Your task to perform on an android device: Open internet settings Image 0: 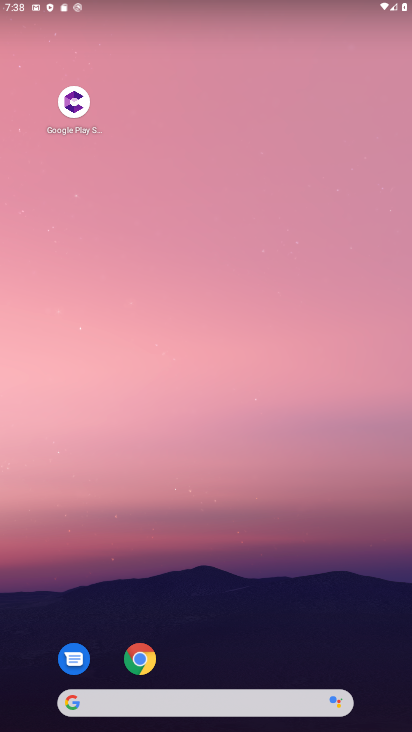
Step 0: drag from (246, 623) to (229, 0)
Your task to perform on an android device: Open internet settings Image 1: 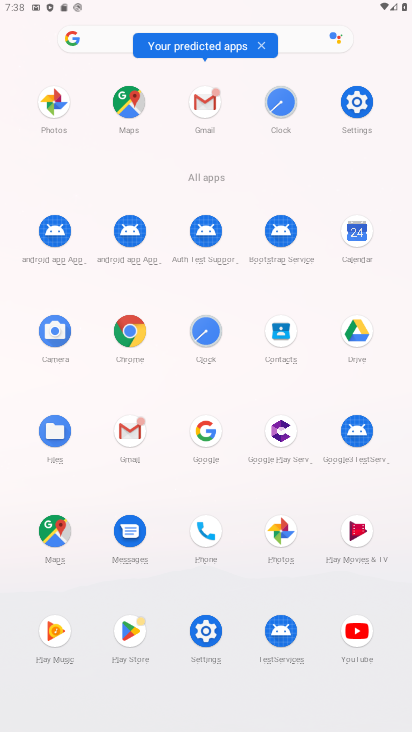
Step 1: click (348, 107)
Your task to perform on an android device: Open internet settings Image 2: 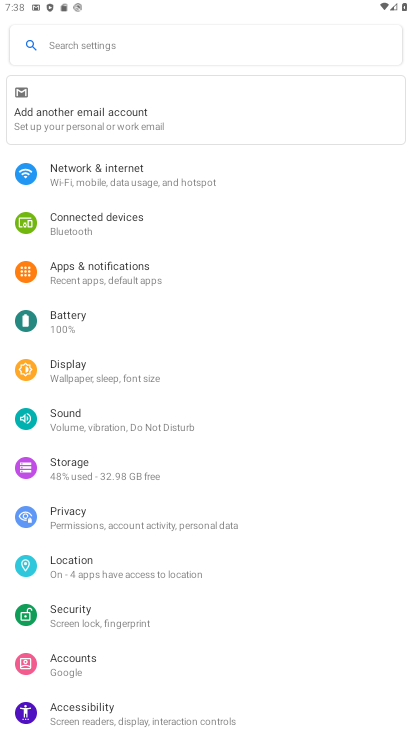
Step 2: click (105, 188)
Your task to perform on an android device: Open internet settings Image 3: 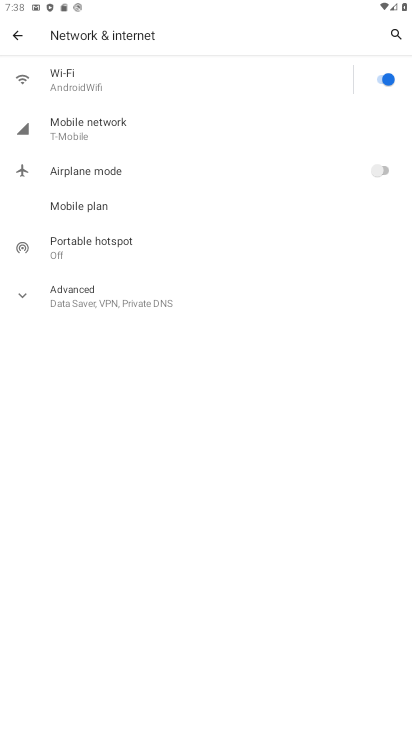
Step 3: click (22, 298)
Your task to perform on an android device: Open internet settings Image 4: 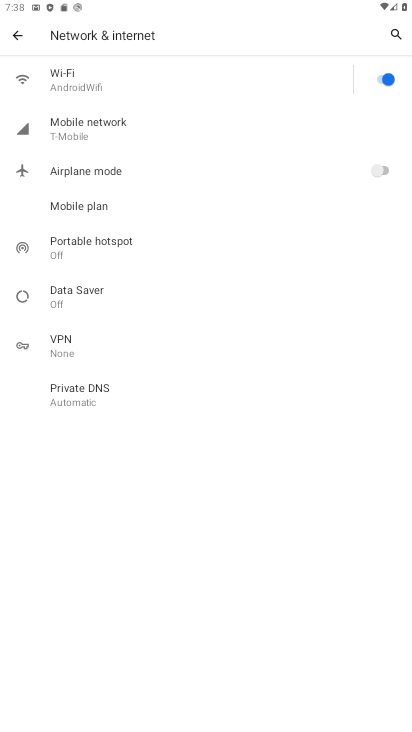
Step 4: task complete